Your task to perform on an android device: Go to ESPN.com Image 0: 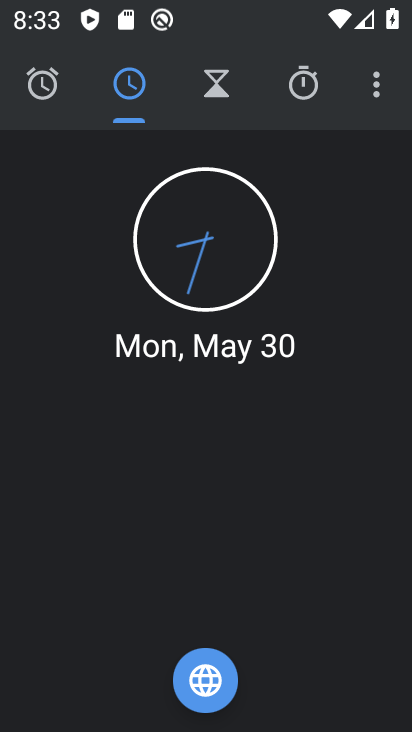
Step 0: press back button
Your task to perform on an android device: Go to ESPN.com Image 1: 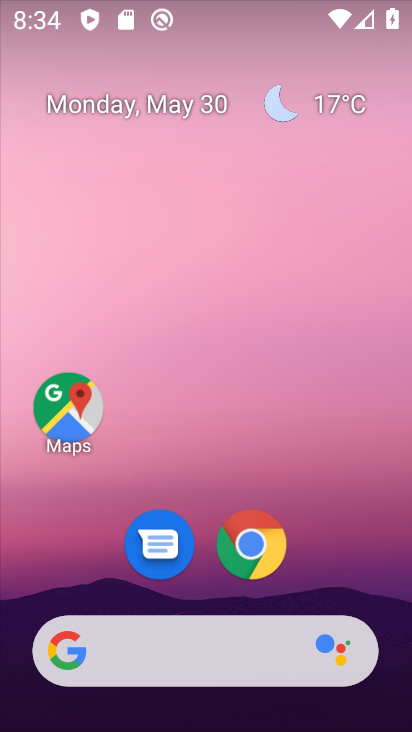
Step 1: click (250, 535)
Your task to perform on an android device: Go to ESPN.com Image 2: 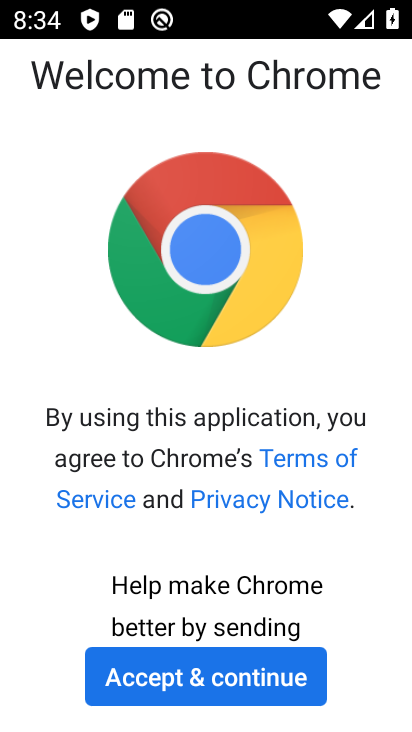
Step 2: click (194, 672)
Your task to perform on an android device: Go to ESPN.com Image 3: 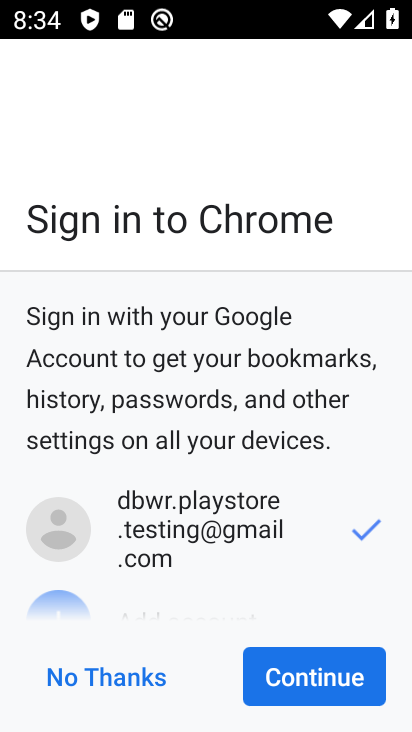
Step 3: click (290, 682)
Your task to perform on an android device: Go to ESPN.com Image 4: 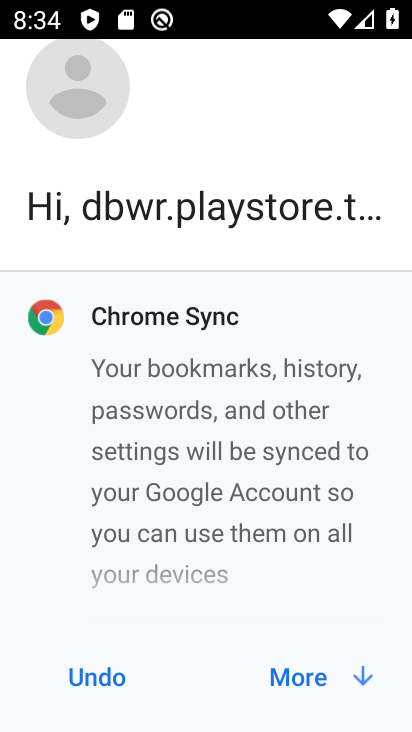
Step 4: click (290, 682)
Your task to perform on an android device: Go to ESPN.com Image 5: 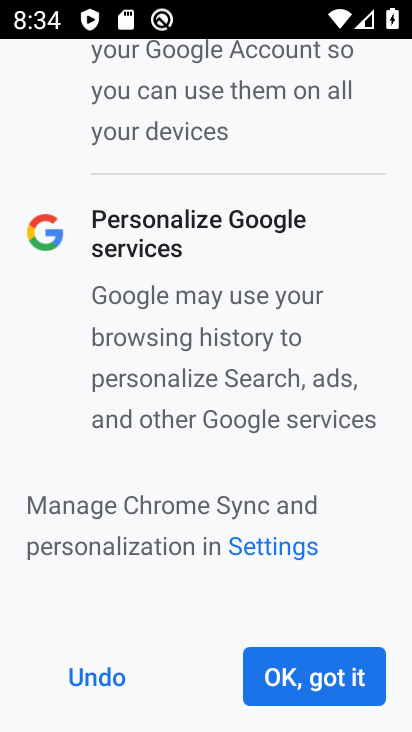
Step 5: click (290, 682)
Your task to perform on an android device: Go to ESPN.com Image 6: 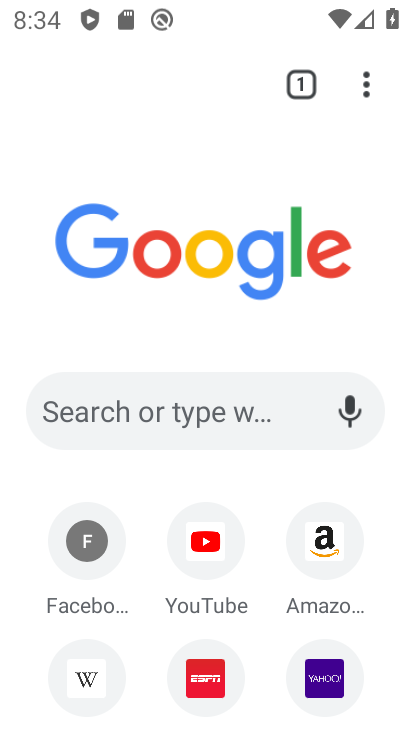
Step 6: click (164, 414)
Your task to perform on an android device: Go to ESPN.com Image 7: 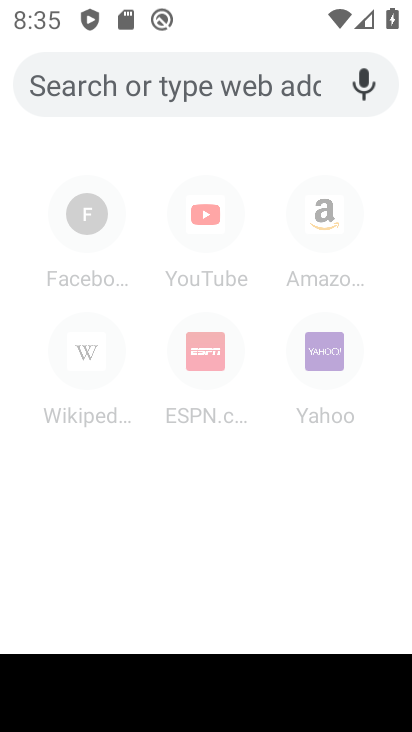
Step 7: type "ESPN.com"
Your task to perform on an android device: Go to ESPN.com Image 8: 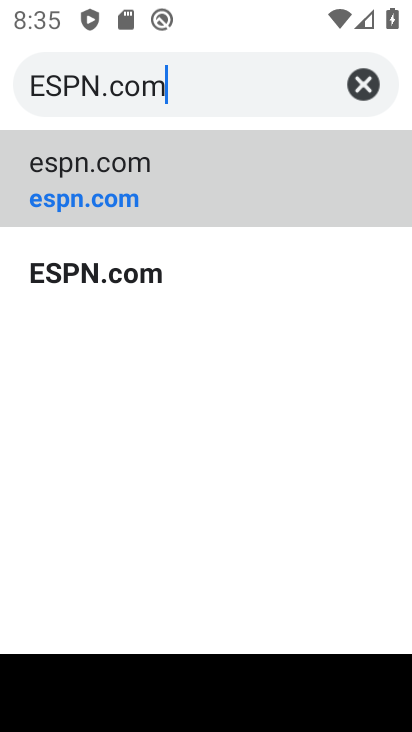
Step 8: click (147, 264)
Your task to perform on an android device: Go to ESPN.com Image 9: 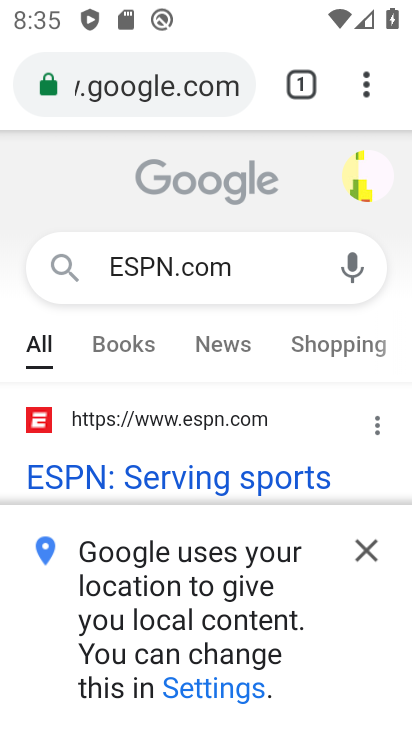
Step 9: click (366, 544)
Your task to perform on an android device: Go to ESPN.com Image 10: 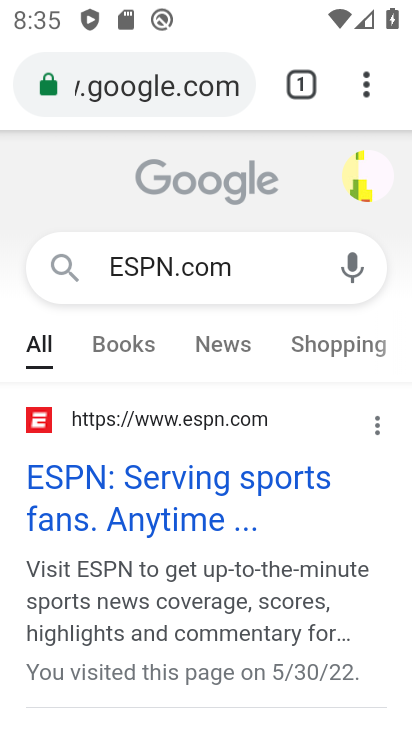
Step 10: click (142, 498)
Your task to perform on an android device: Go to ESPN.com Image 11: 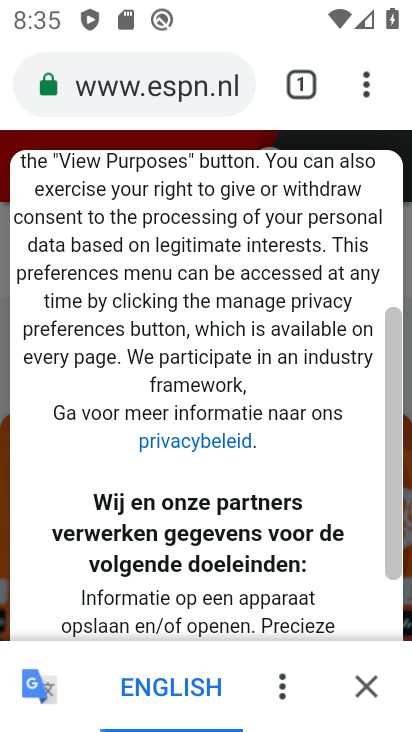
Step 11: task complete